Your task to perform on an android device: Go to calendar. Show me events next week Image 0: 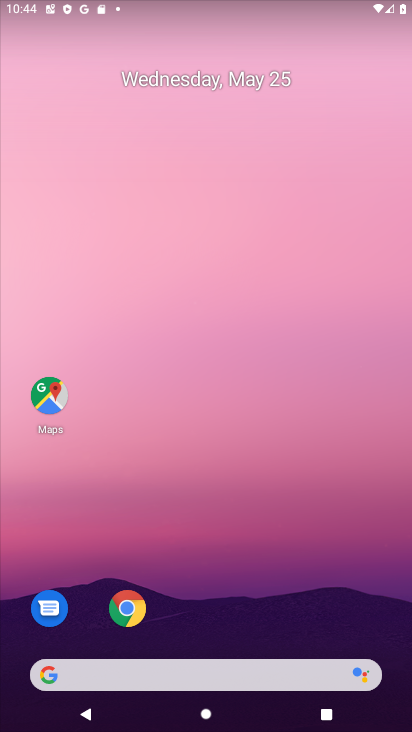
Step 0: drag from (299, 651) to (284, 10)
Your task to perform on an android device: Go to calendar. Show me events next week Image 1: 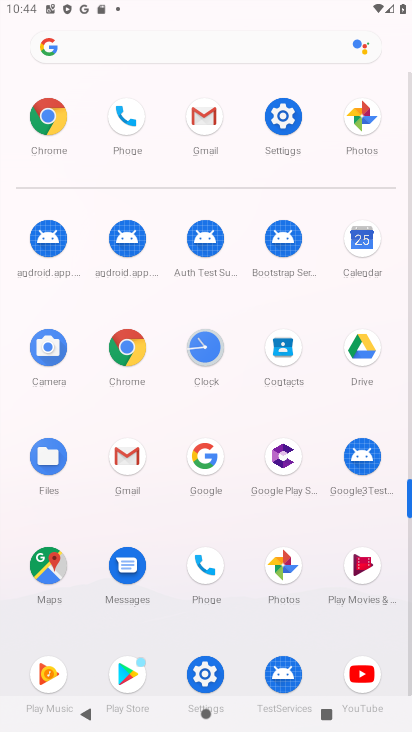
Step 1: click (363, 231)
Your task to perform on an android device: Go to calendar. Show me events next week Image 2: 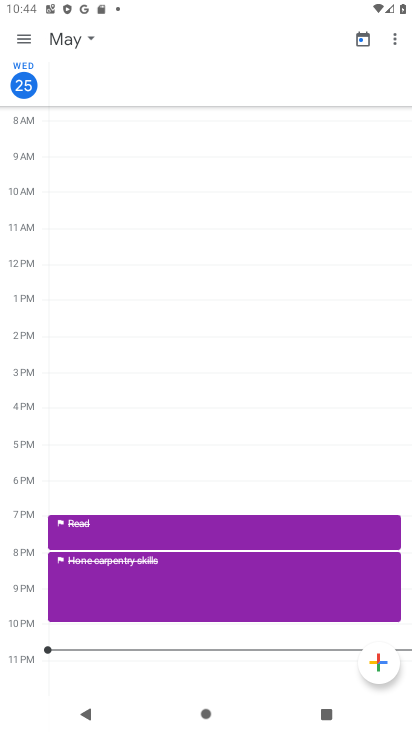
Step 2: click (16, 35)
Your task to perform on an android device: Go to calendar. Show me events next week Image 3: 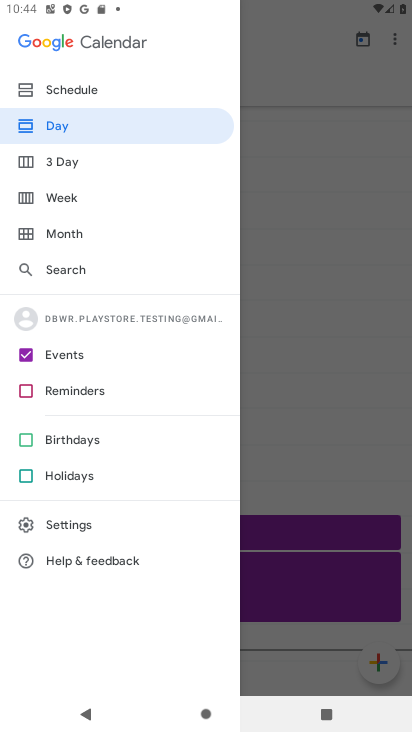
Step 3: click (51, 194)
Your task to perform on an android device: Go to calendar. Show me events next week Image 4: 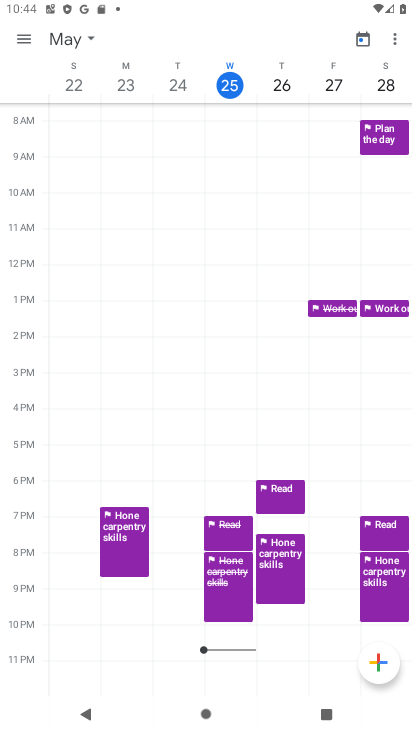
Step 4: task complete